Your task to perform on an android device: Turn on the flashlight Image 0: 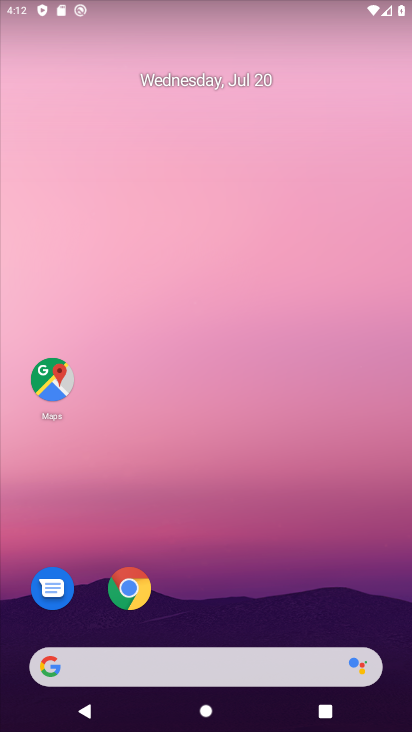
Step 0: drag from (214, 635) to (241, 60)
Your task to perform on an android device: Turn on the flashlight Image 1: 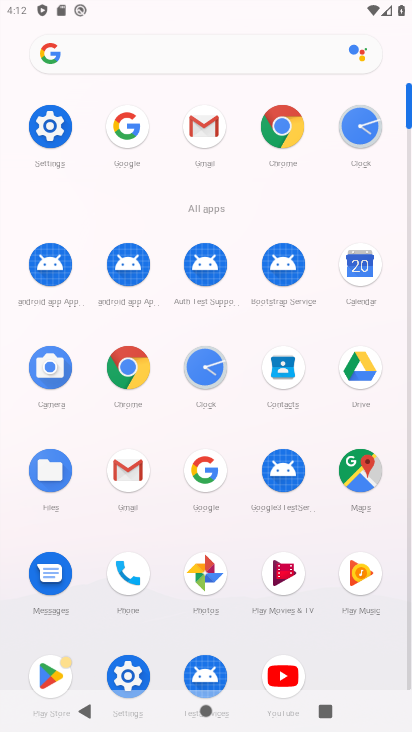
Step 1: click (46, 126)
Your task to perform on an android device: Turn on the flashlight Image 2: 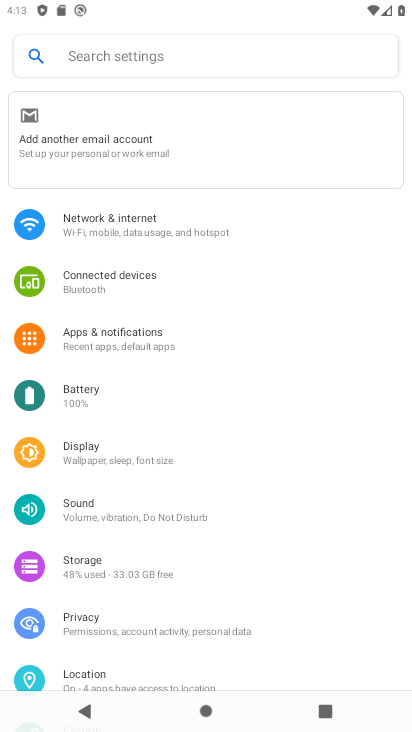
Step 2: click (109, 51)
Your task to perform on an android device: Turn on the flashlight Image 3: 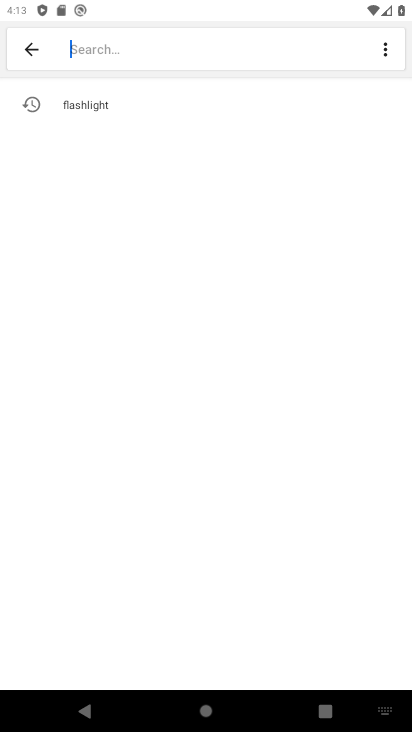
Step 3: click (104, 102)
Your task to perform on an android device: Turn on the flashlight Image 4: 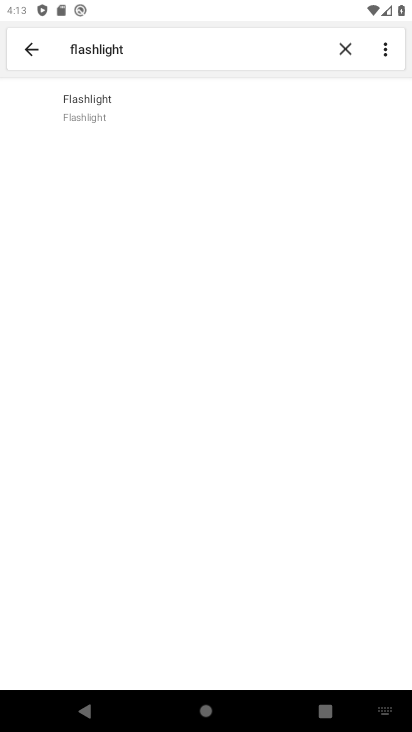
Step 4: click (94, 101)
Your task to perform on an android device: Turn on the flashlight Image 5: 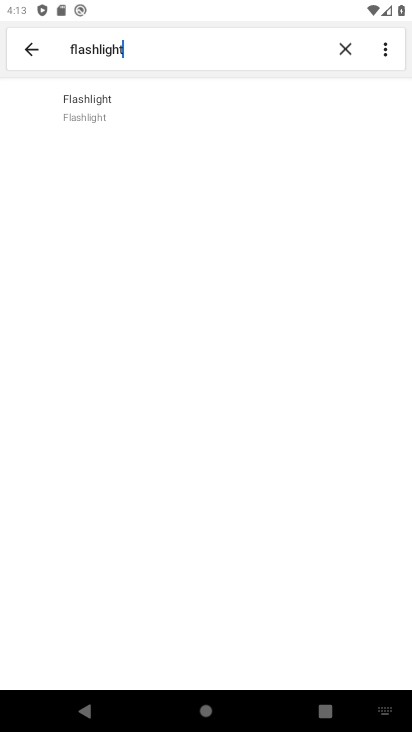
Step 5: task complete